Your task to perform on an android device: Do I have any events today? Image 0: 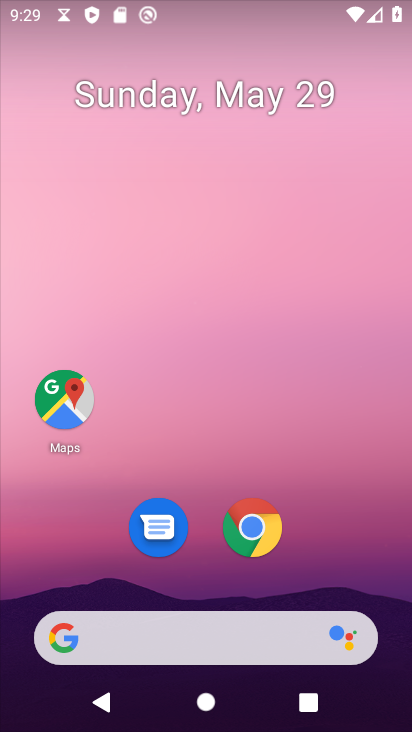
Step 0: drag from (193, 575) to (333, 55)
Your task to perform on an android device: Do I have any events today? Image 1: 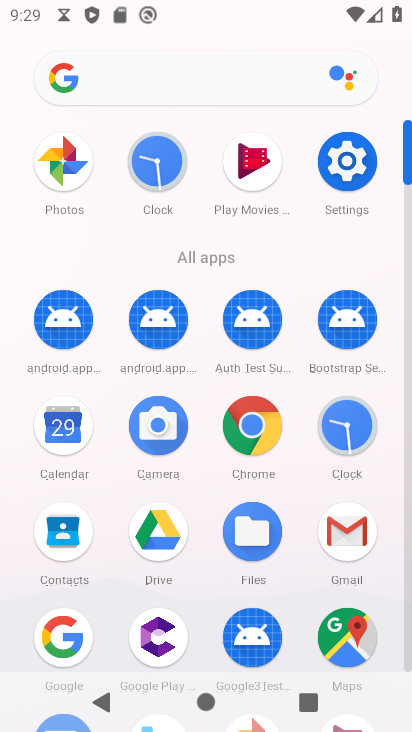
Step 1: click (47, 436)
Your task to perform on an android device: Do I have any events today? Image 2: 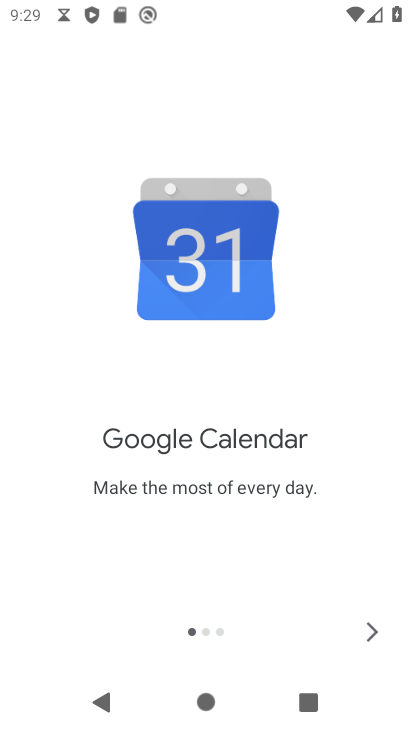
Step 2: click (376, 635)
Your task to perform on an android device: Do I have any events today? Image 3: 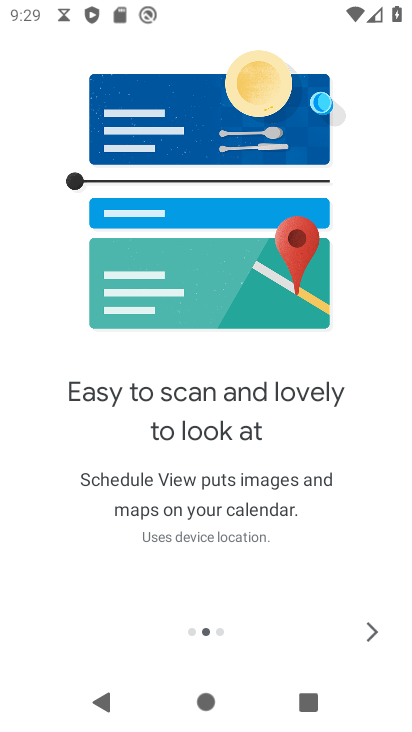
Step 3: click (375, 635)
Your task to perform on an android device: Do I have any events today? Image 4: 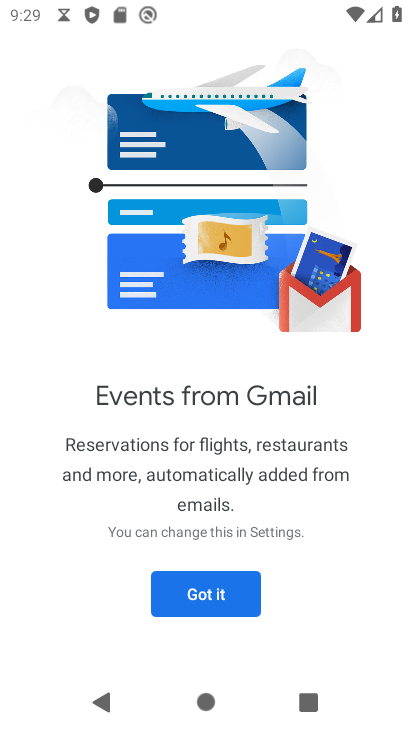
Step 4: click (200, 589)
Your task to perform on an android device: Do I have any events today? Image 5: 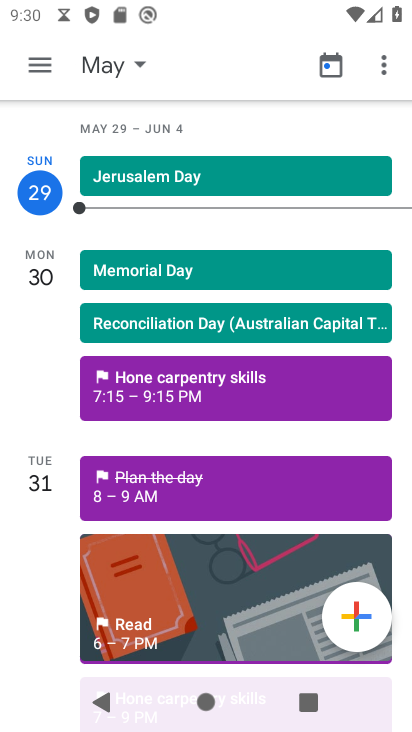
Step 5: click (99, 63)
Your task to perform on an android device: Do I have any events today? Image 6: 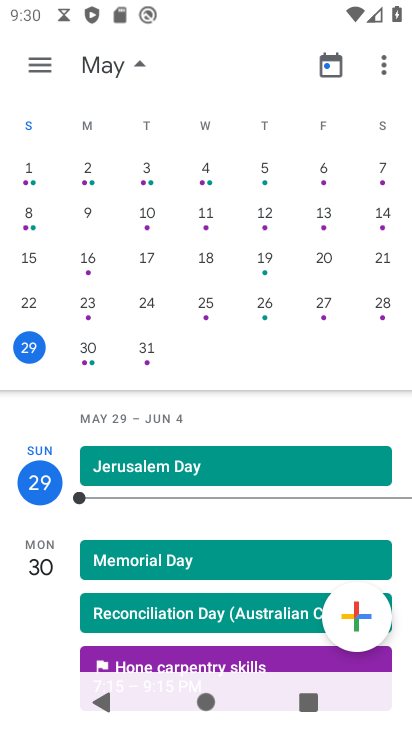
Step 6: click (31, 353)
Your task to perform on an android device: Do I have any events today? Image 7: 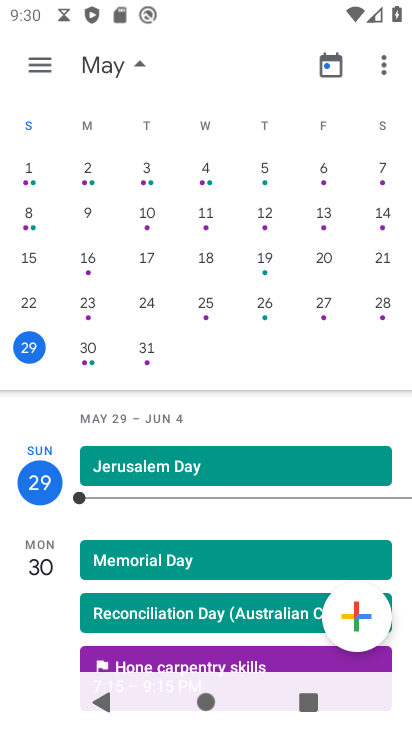
Step 7: click (42, 66)
Your task to perform on an android device: Do I have any events today? Image 8: 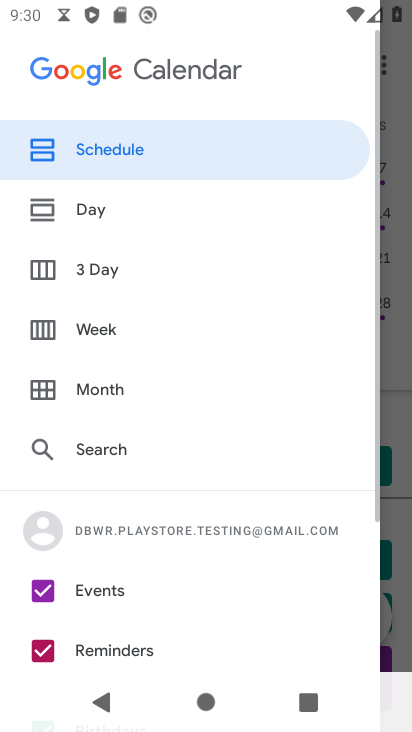
Step 8: click (88, 220)
Your task to perform on an android device: Do I have any events today? Image 9: 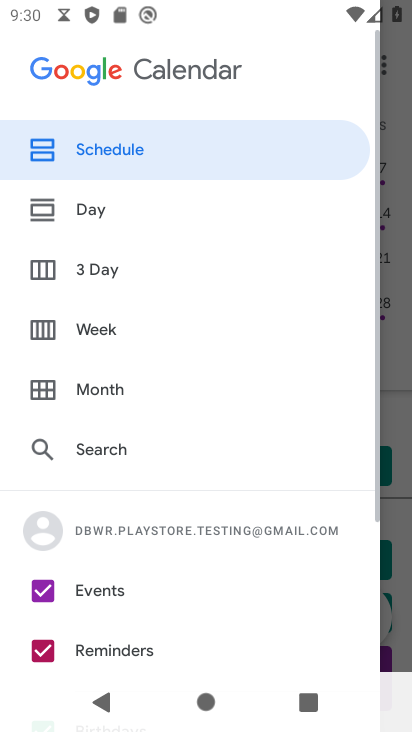
Step 9: click (85, 207)
Your task to perform on an android device: Do I have any events today? Image 10: 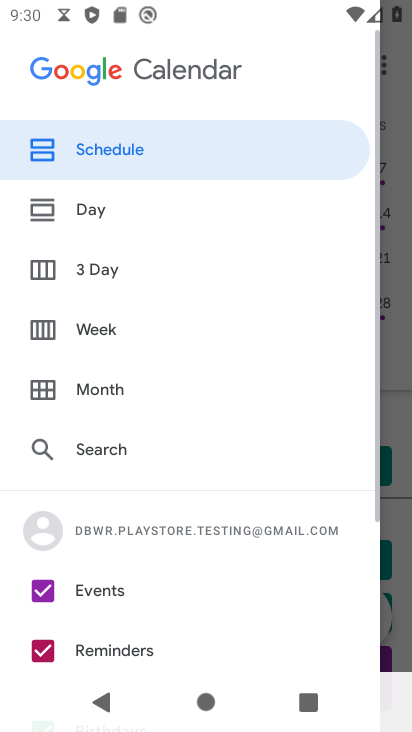
Step 10: click (110, 219)
Your task to perform on an android device: Do I have any events today? Image 11: 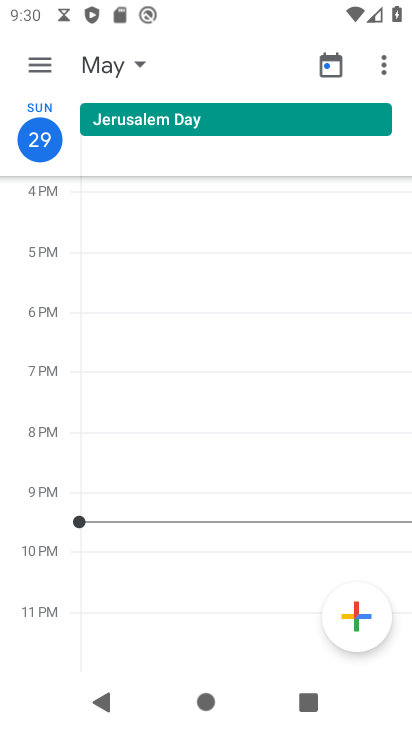
Step 11: click (56, 69)
Your task to perform on an android device: Do I have any events today? Image 12: 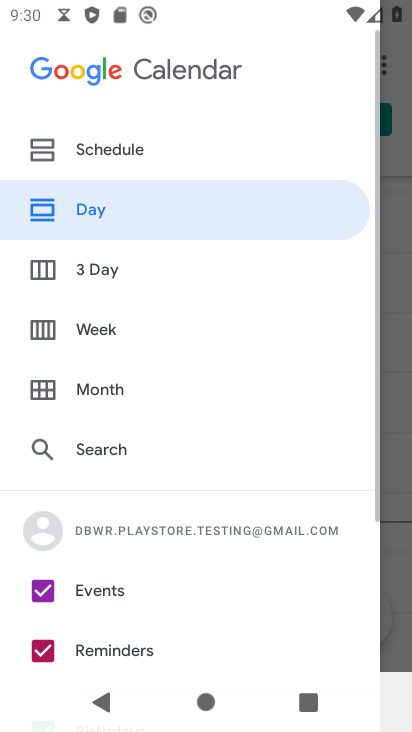
Step 12: click (176, 153)
Your task to perform on an android device: Do I have any events today? Image 13: 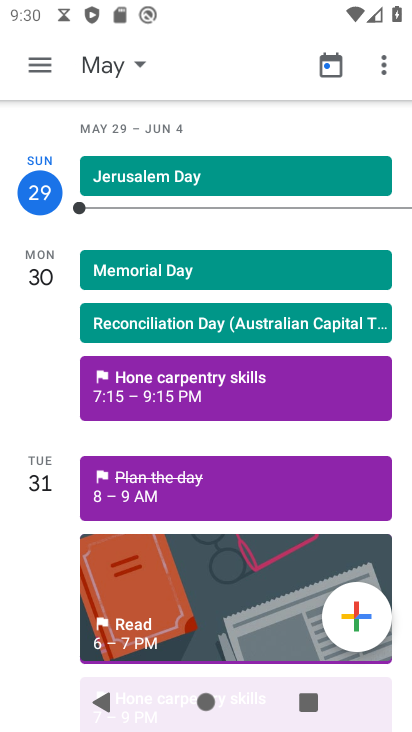
Step 13: task complete